Your task to perform on an android device: Go to Wikipedia Image 0: 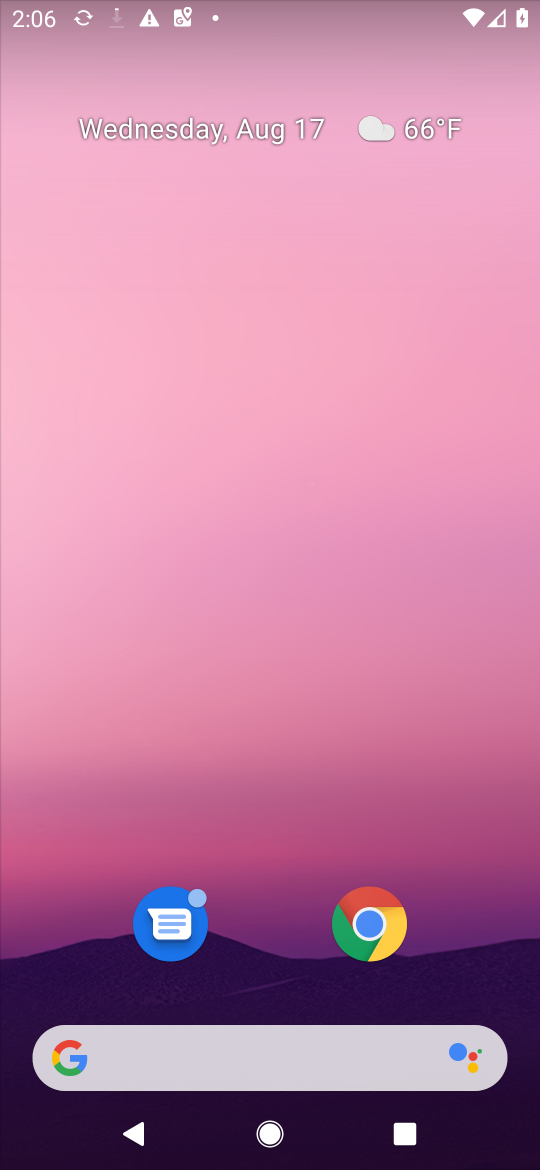
Step 0: click (374, 924)
Your task to perform on an android device: Go to Wikipedia Image 1: 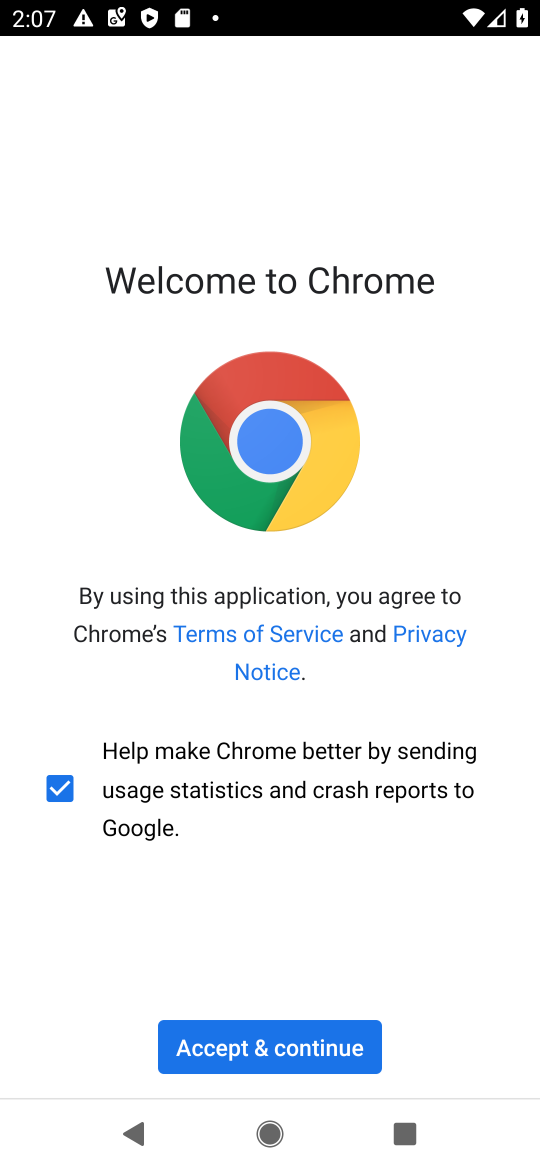
Step 1: click (267, 1044)
Your task to perform on an android device: Go to Wikipedia Image 2: 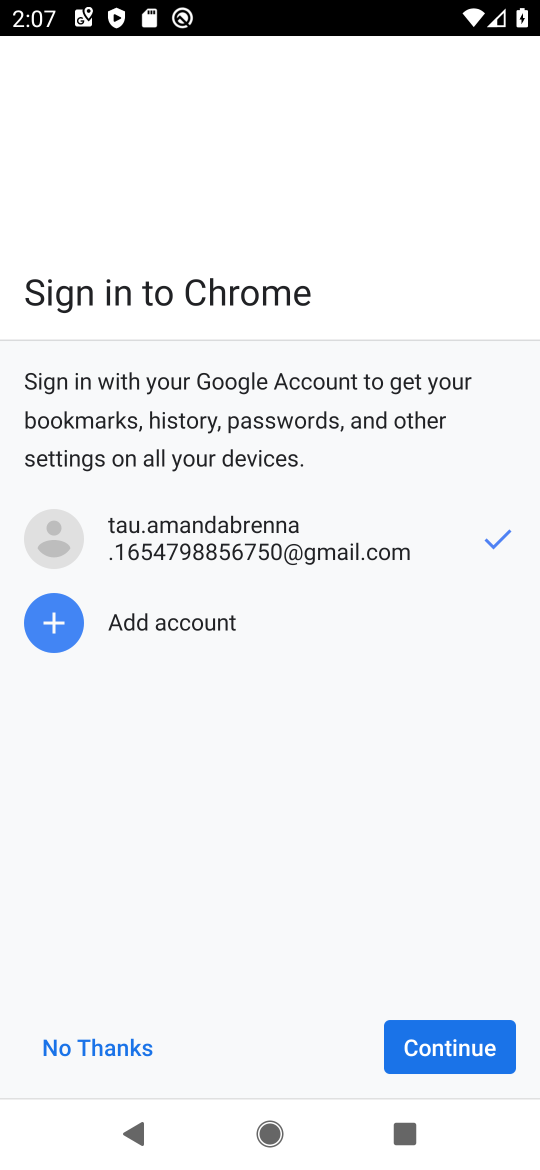
Step 2: click (441, 1038)
Your task to perform on an android device: Go to Wikipedia Image 3: 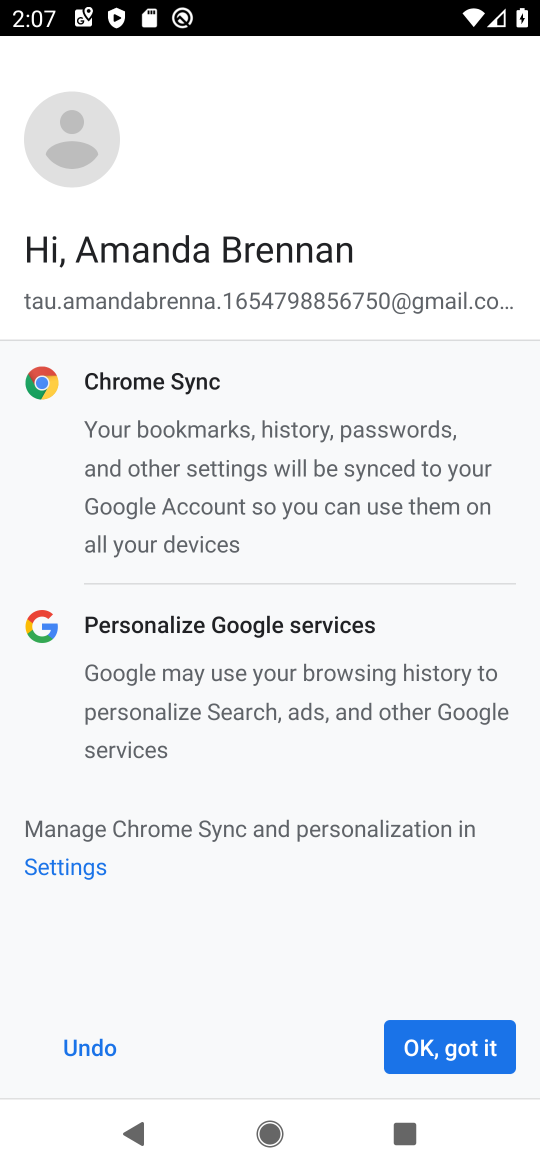
Step 3: click (441, 1038)
Your task to perform on an android device: Go to Wikipedia Image 4: 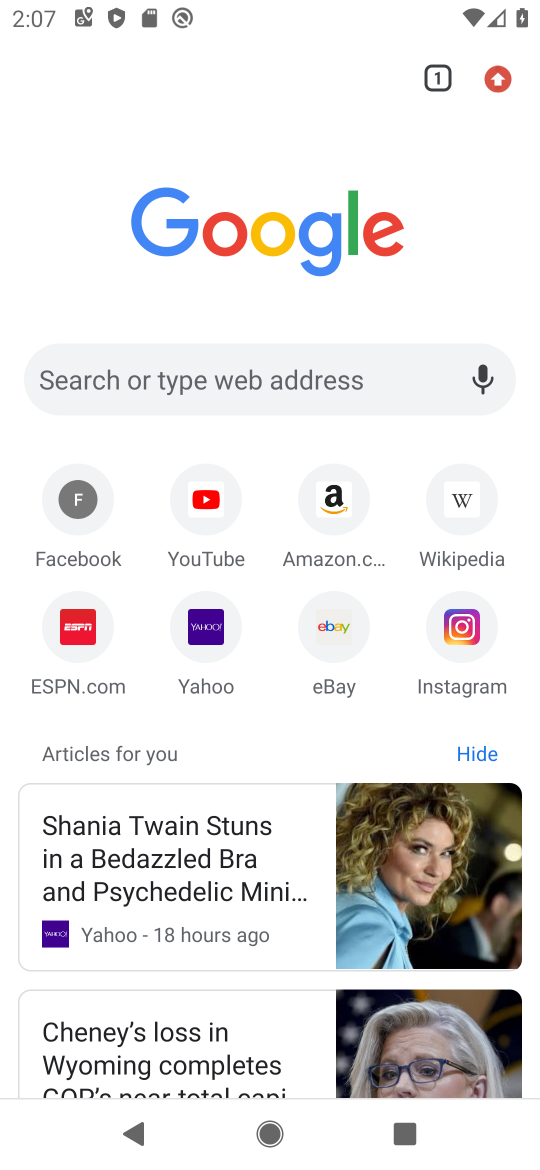
Step 4: click (471, 513)
Your task to perform on an android device: Go to Wikipedia Image 5: 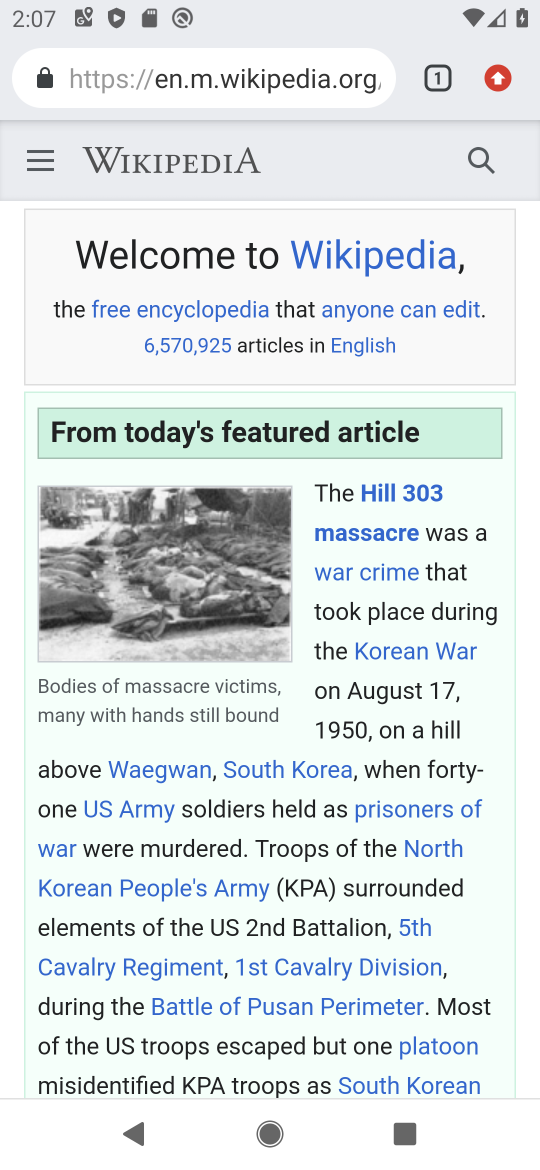
Step 5: task complete